Your task to perform on an android device: open the mobile data screen to see how much data has been used Image 0: 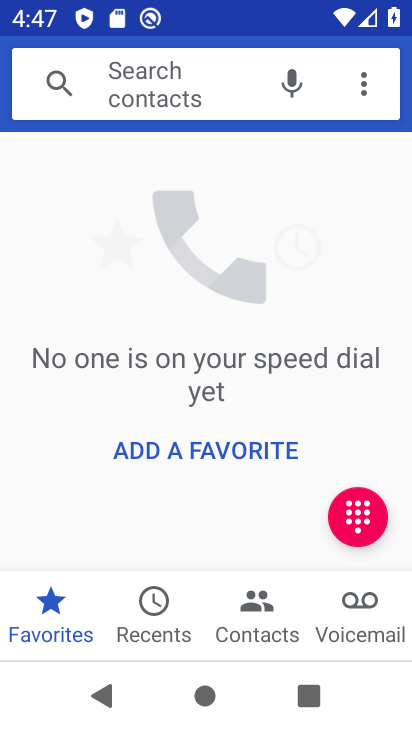
Step 0: drag from (235, 552) to (218, 414)
Your task to perform on an android device: open the mobile data screen to see how much data has been used Image 1: 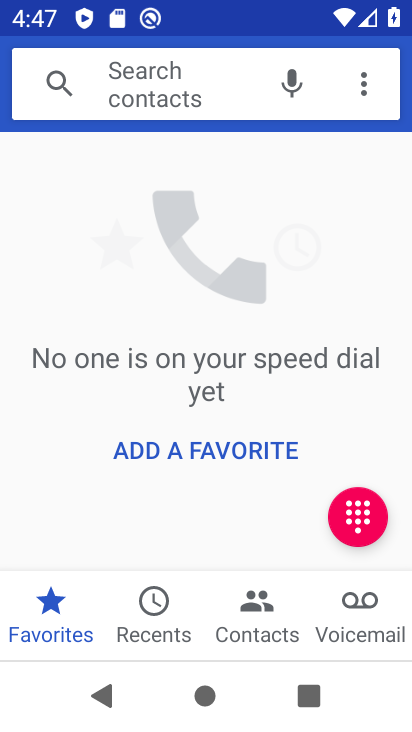
Step 1: press home button
Your task to perform on an android device: open the mobile data screen to see how much data has been used Image 2: 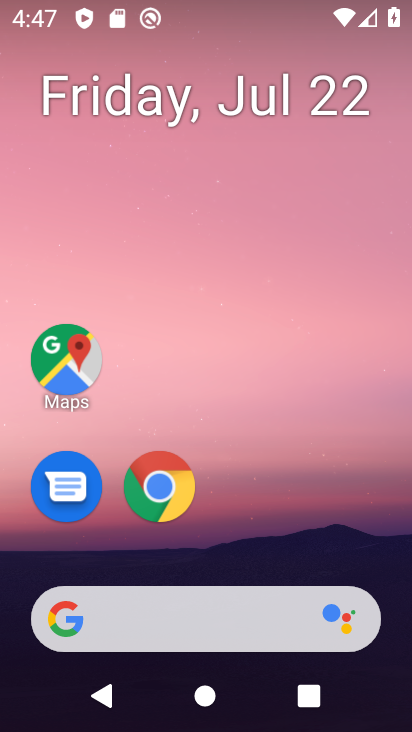
Step 2: drag from (349, 445) to (258, 28)
Your task to perform on an android device: open the mobile data screen to see how much data has been used Image 3: 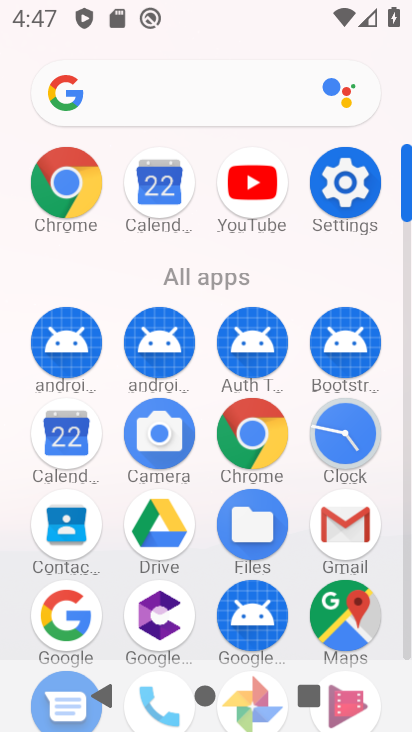
Step 3: click (323, 174)
Your task to perform on an android device: open the mobile data screen to see how much data has been used Image 4: 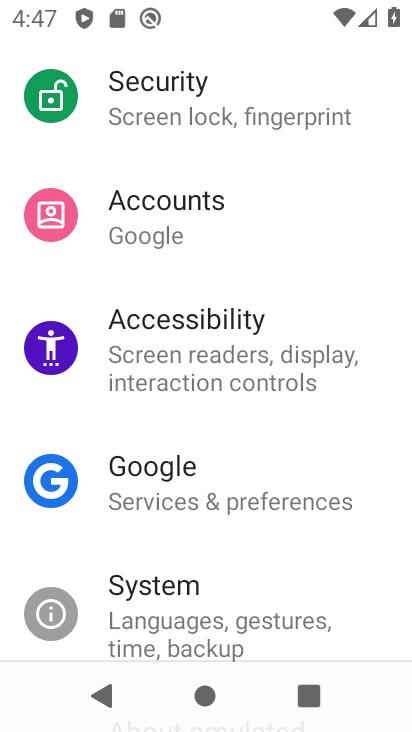
Step 4: drag from (204, 160) to (164, 621)
Your task to perform on an android device: open the mobile data screen to see how much data has been used Image 5: 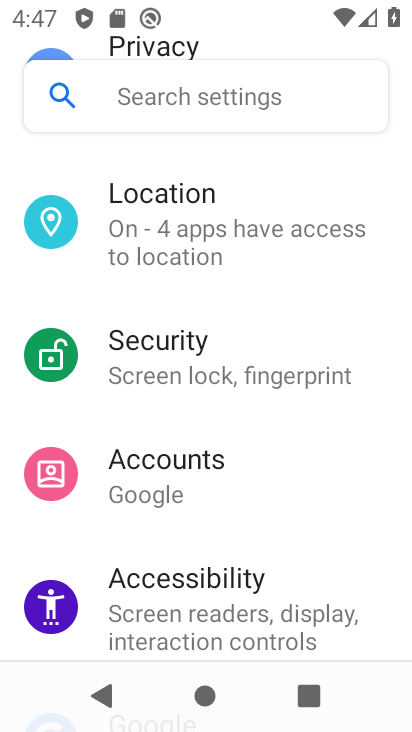
Step 5: drag from (205, 272) to (187, 679)
Your task to perform on an android device: open the mobile data screen to see how much data has been used Image 6: 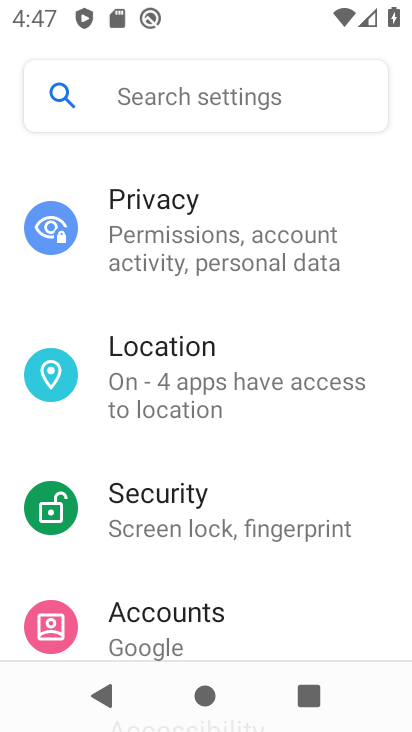
Step 6: drag from (212, 284) to (212, 637)
Your task to perform on an android device: open the mobile data screen to see how much data has been used Image 7: 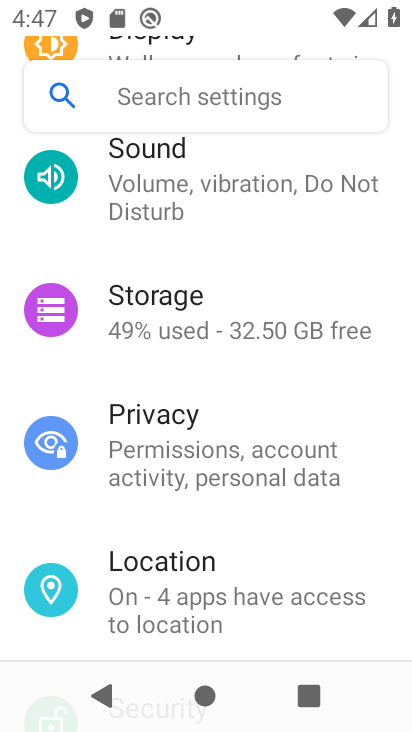
Step 7: drag from (222, 187) to (228, 638)
Your task to perform on an android device: open the mobile data screen to see how much data has been used Image 8: 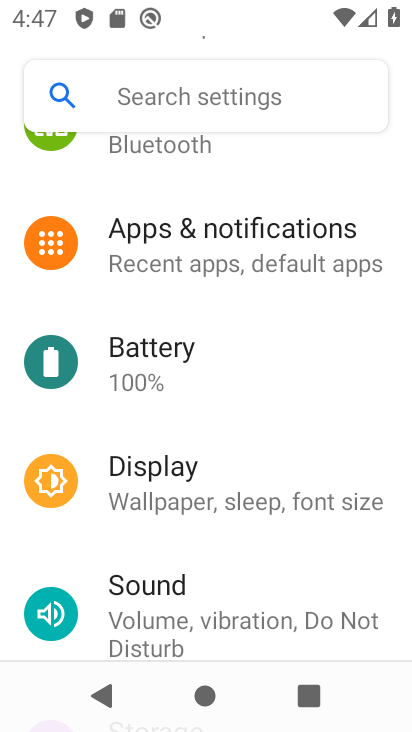
Step 8: drag from (249, 169) to (218, 731)
Your task to perform on an android device: open the mobile data screen to see how much data has been used Image 9: 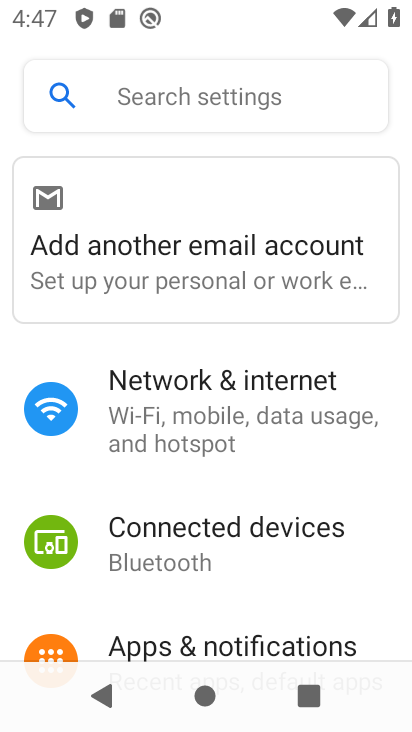
Step 9: click (203, 425)
Your task to perform on an android device: open the mobile data screen to see how much data has been used Image 10: 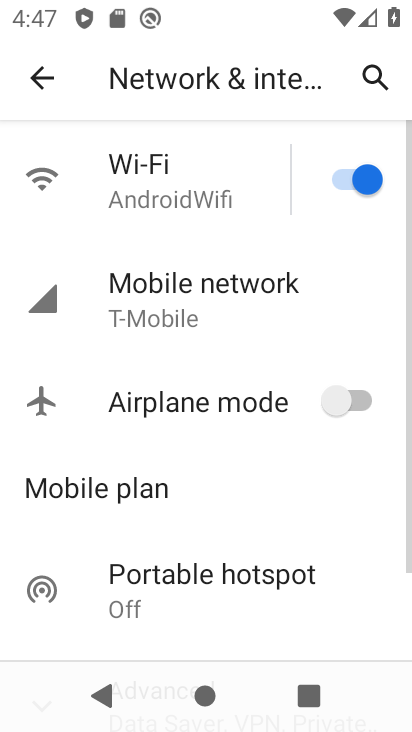
Step 10: click (220, 285)
Your task to perform on an android device: open the mobile data screen to see how much data has been used Image 11: 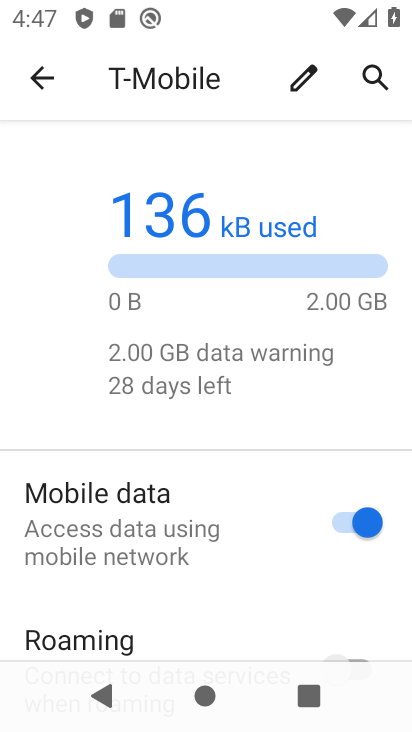
Step 11: task complete